Your task to perform on an android device: Go to location settings Image 0: 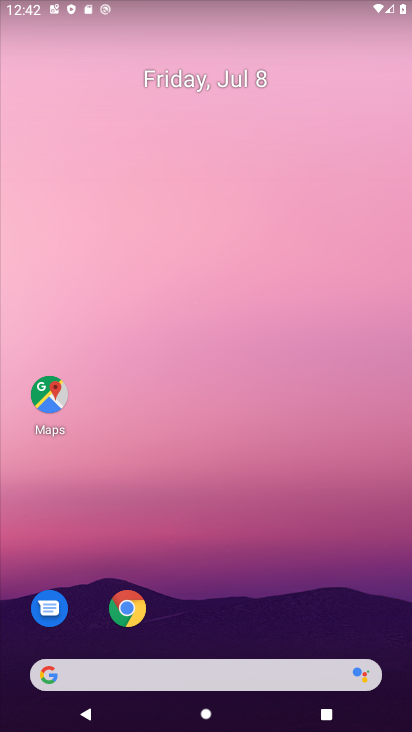
Step 0: drag from (305, 603) to (262, 295)
Your task to perform on an android device: Go to location settings Image 1: 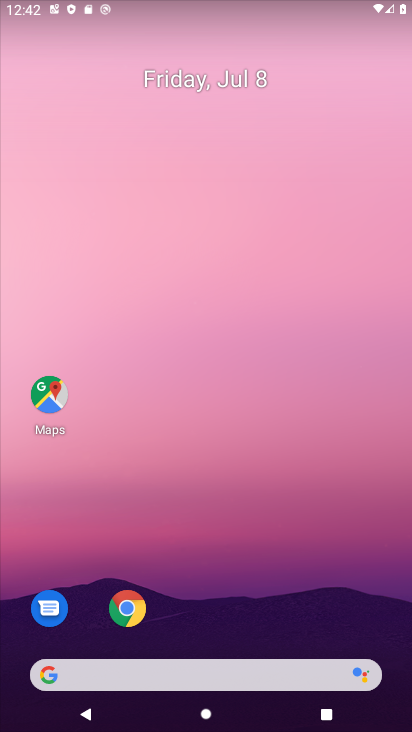
Step 1: drag from (247, 637) to (208, 169)
Your task to perform on an android device: Go to location settings Image 2: 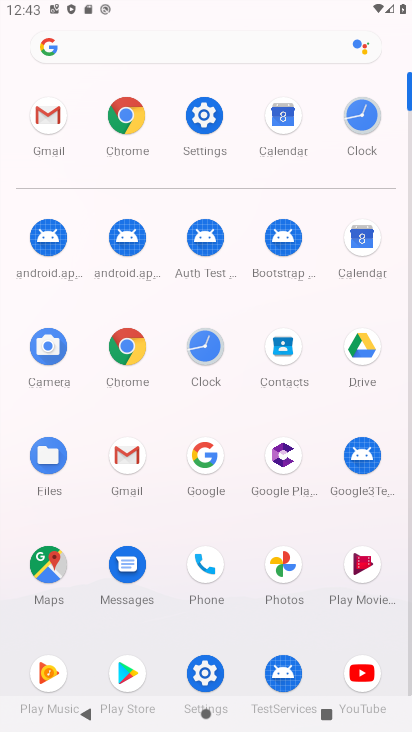
Step 2: click (210, 143)
Your task to perform on an android device: Go to location settings Image 3: 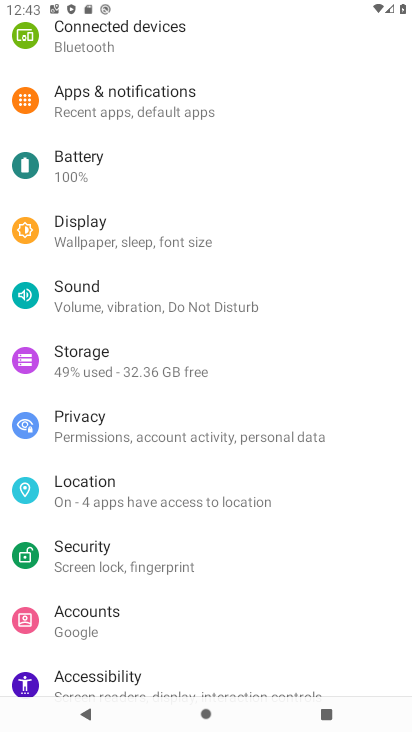
Step 3: click (168, 482)
Your task to perform on an android device: Go to location settings Image 4: 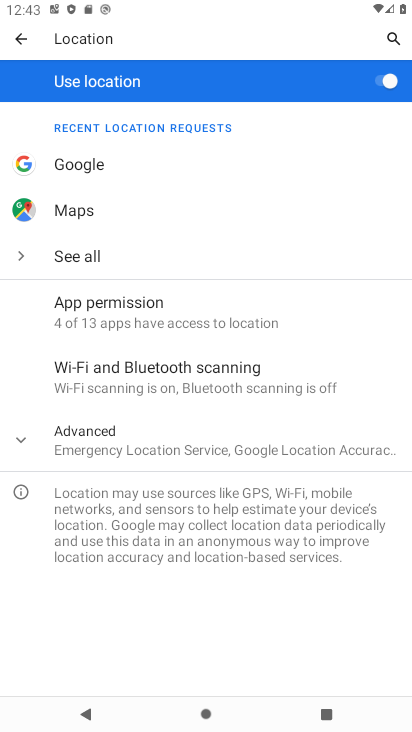
Step 4: task complete